Your task to perform on an android device: turn off translation in the chrome app Image 0: 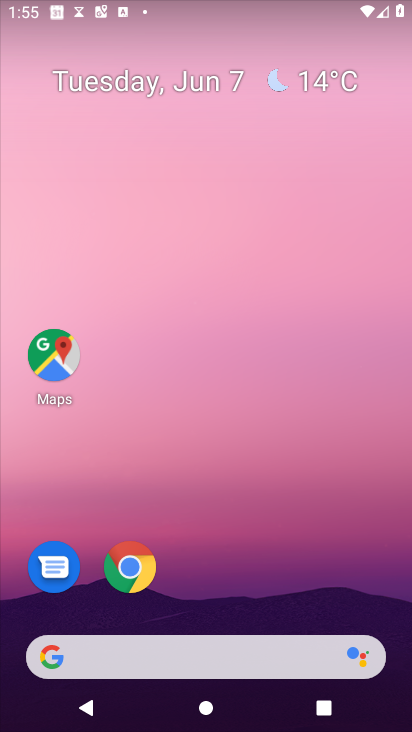
Step 0: drag from (281, 652) to (267, 14)
Your task to perform on an android device: turn off translation in the chrome app Image 1: 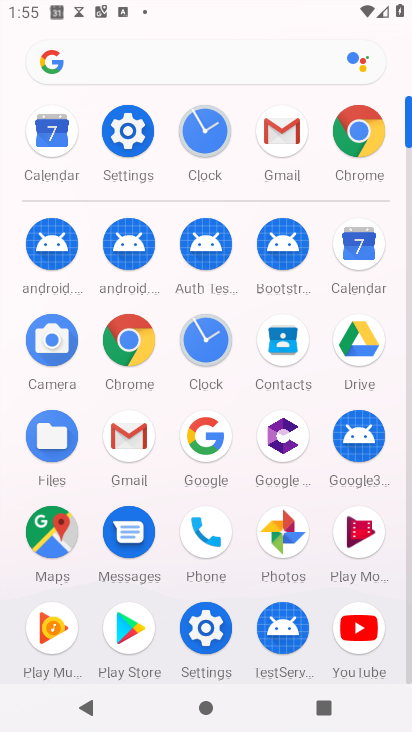
Step 1: click (144, 345)
Your task to perform on an android device: turn off translation in the chrome app Image 2: 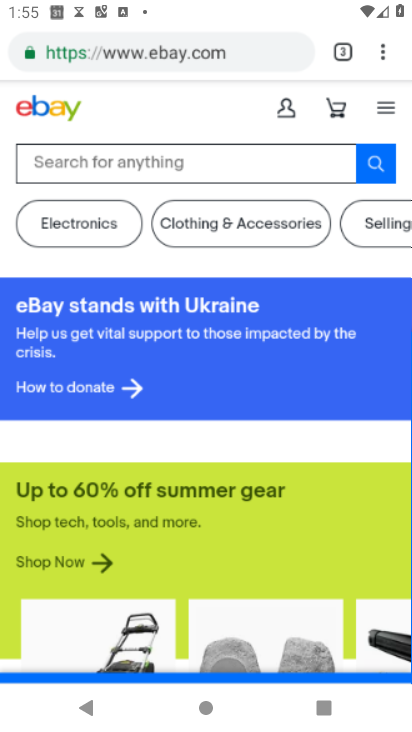
Step 2: drag from (378, 43) to (213, 624)
Your task to perform on an android device: turn off translation in the chrome app Image 3: 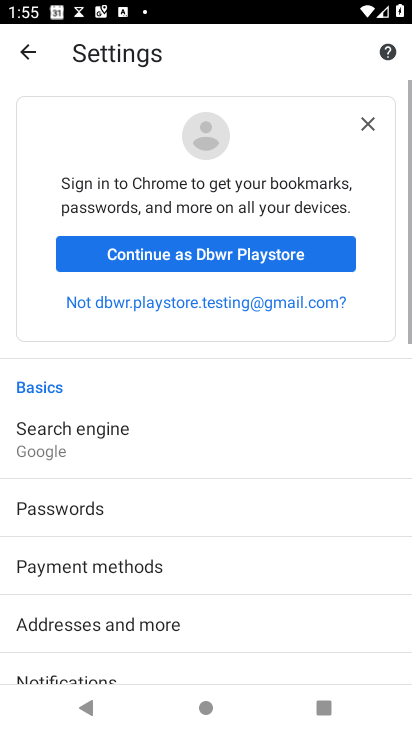
Step 3: drag from (243, 586) to (313, 1)
Your task to perform on an android device: turn off translation in the chrome app Image 4: 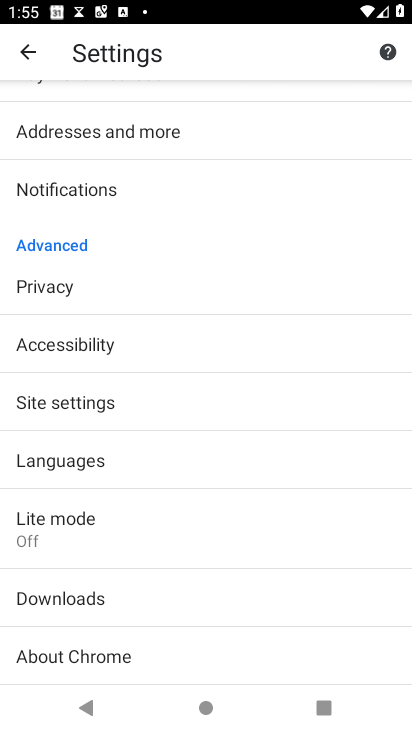
Step 4: click (95, 464)
Your task to perform on an android device: turn off translation in the chrome app Image 5: 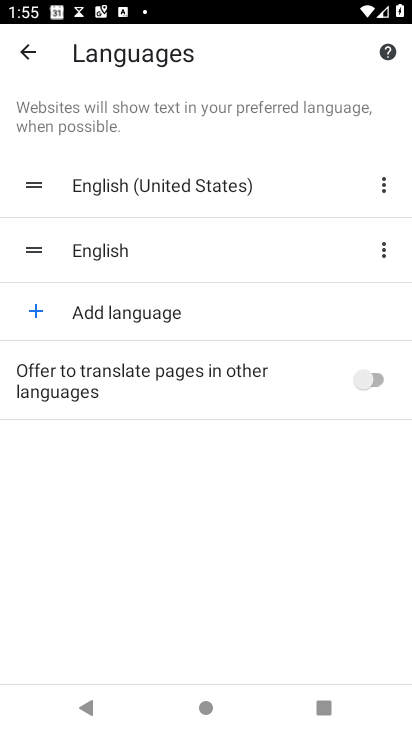
Step 5: task complete